Your task to perform on an android device: turn off picture-in-picture Image 0: 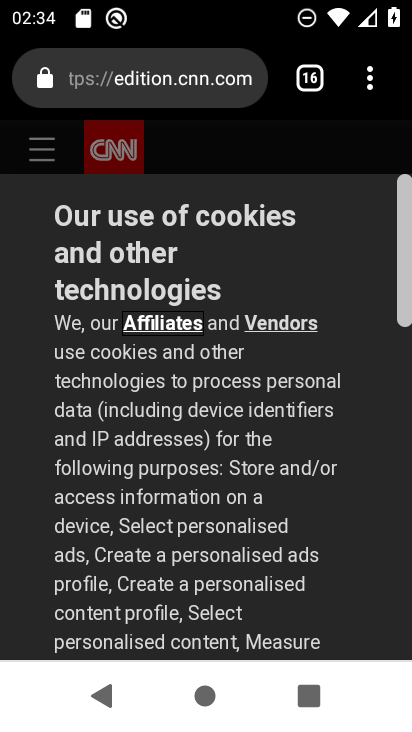
Step 0: click (375, 83)
Your task to perform on an android device: turn off picture-in-picture Image 1: 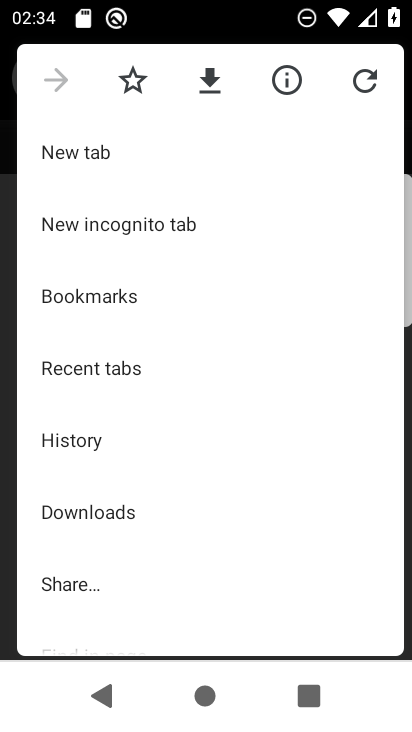
Step 1: press home button
Your task to perform on an android device: turn off picture-in-picture Image 2: 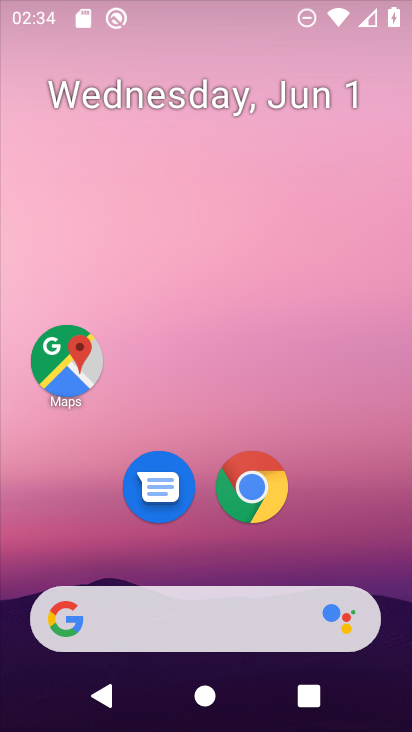
Step 2: drag from (248, 589) to (254, 206)
Your task to perform on an android device: turn off picture-in-picture Image 3: 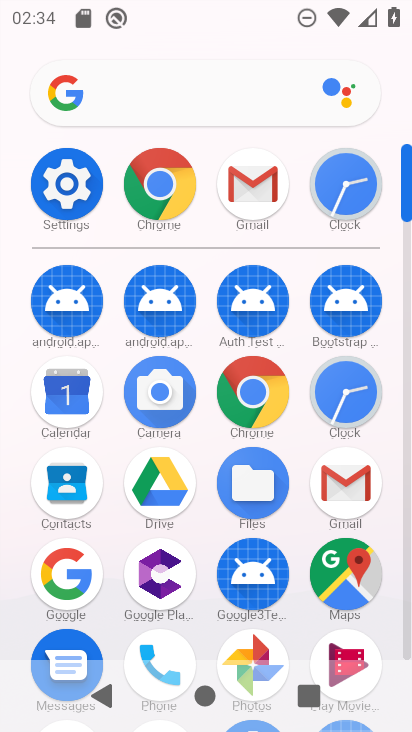
Step 3: click (69, 175)
Your task to perform on an android device: turn off picture-in-picture Image 4: 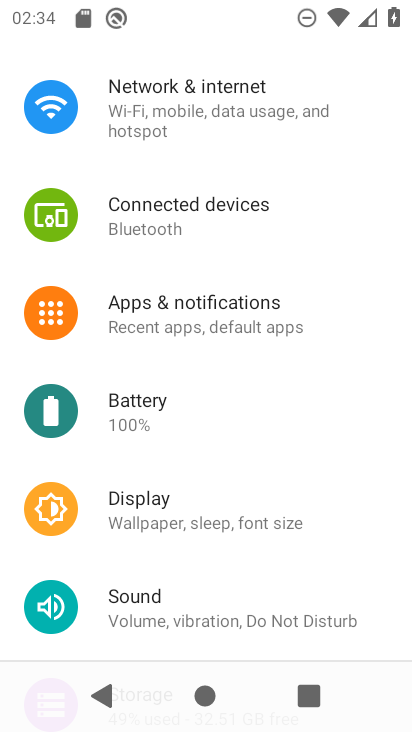
Step 4: drag from (203, 211) to (206, 286)
Your task to perform on an android device: turn off picture-in-picture Image 5: 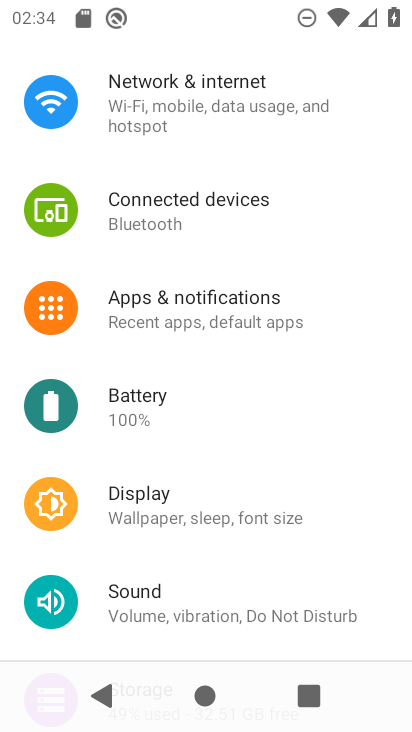
Step 5: click (184, 302)
Your task to perform on an android device: turn off picture-in-picture Image 6: 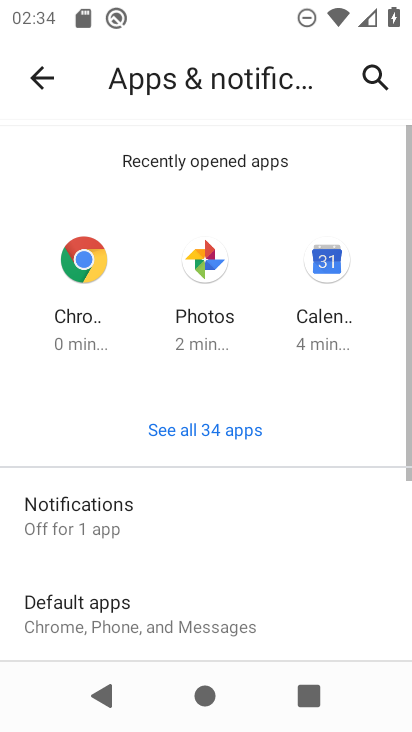
Step 6: drag from (178, 622) to (257, 264)
Your task to perform on an android device: turn off picture-in-picture Image 7: 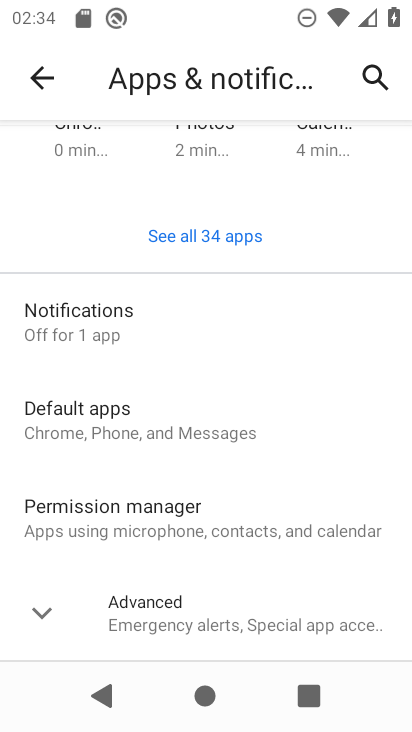
Step 7: click (260, 644)
Your task to perform on an android device: turn off picture-in-picture Image 8: 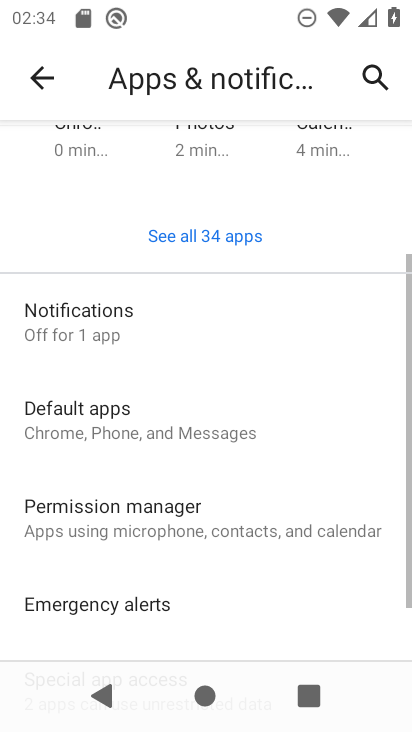
Step 8: drag from (185, 558) to (210, 211)
Your task to perform on an android device: turn off picture-in-picture Image 9: 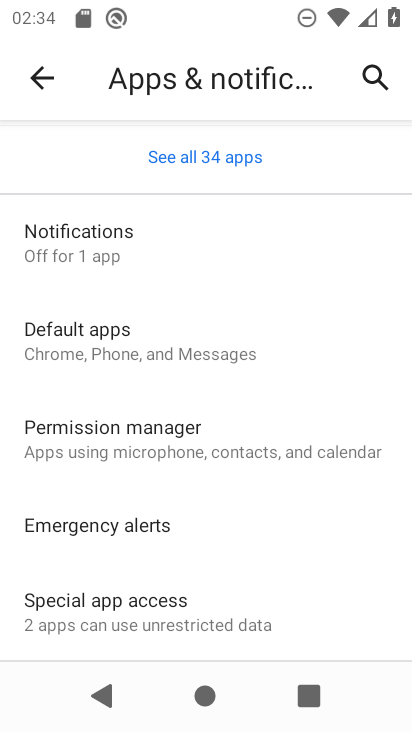
Step 9: click (114, 623)
Your task to perform on an android device: turn off picture-in-picture Image 10: 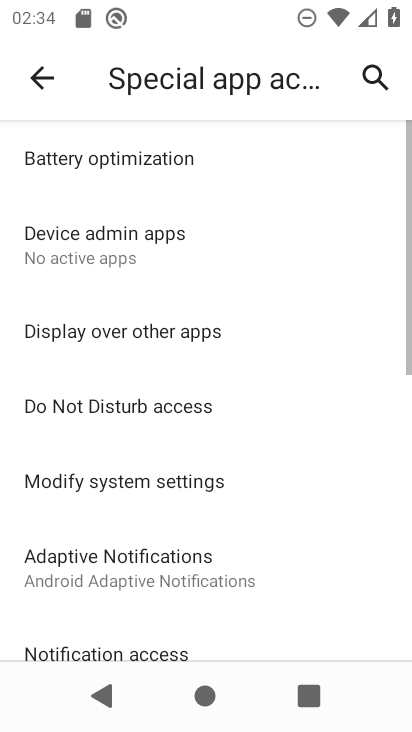
Step 10: drag from (175, 520) to (210, 276)
Your task to perform on an android device: turn off picture-in-picture Image 11: 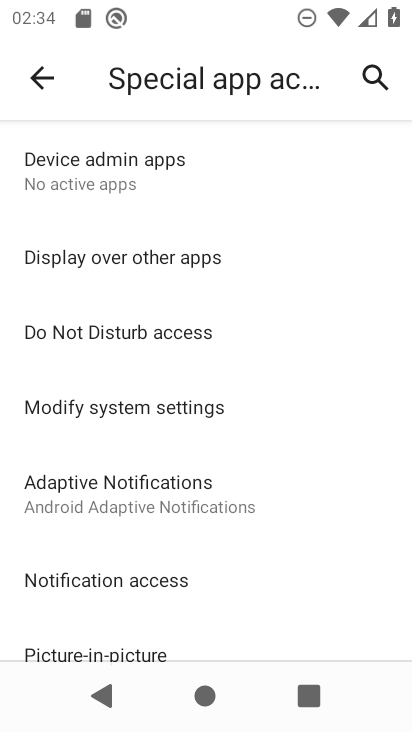
Step 11: drag from (140, 604) to (178, 398)
Your task to perform on an android device: turn off picture-in-picture Image 12: 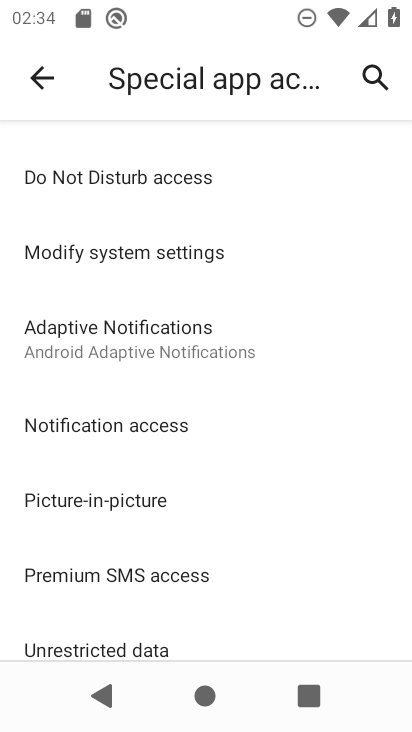
Step 12: click (112, 495)
Your task to perform on an android device: turn off picture-in-picture Image 13: 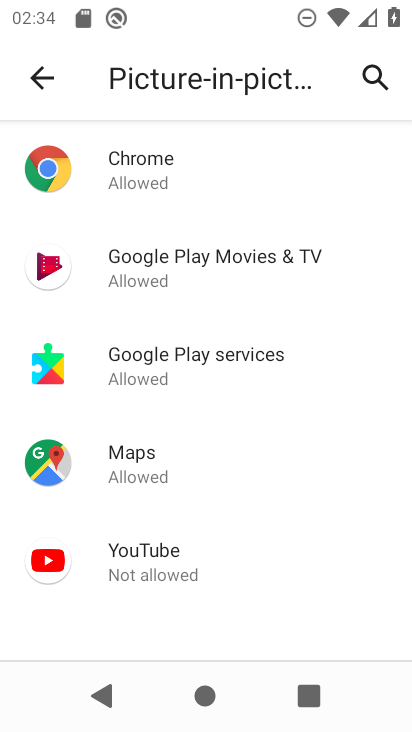
Step 13: click (202, 568)
Your task to perform on an android device: turn off picture-in-picture Image 14: 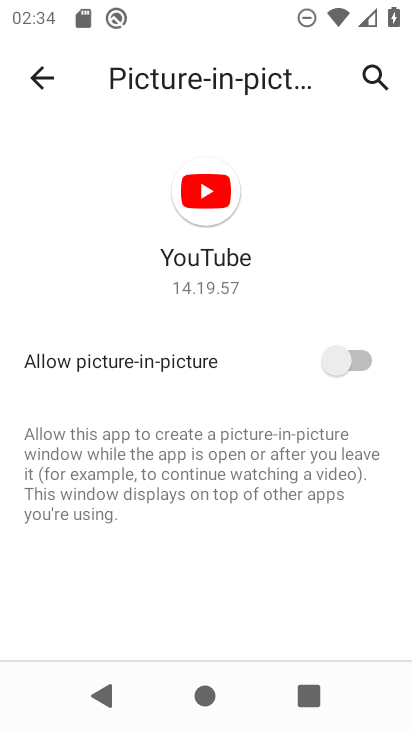
Step 14: task complete